Your task to perform on an android device: When is my next appointment? Image 0: 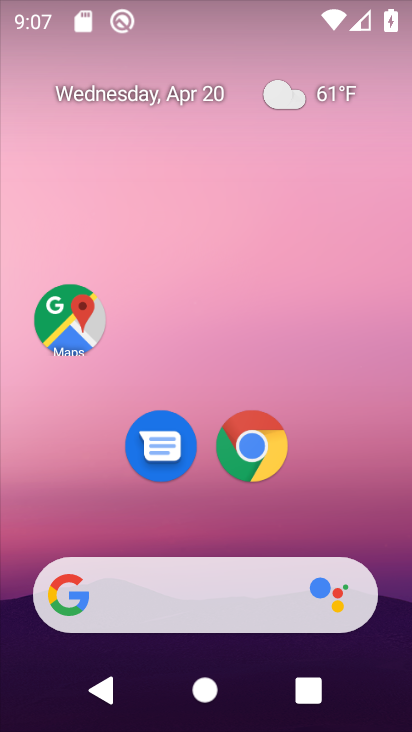
Step 0: drag from (390, 487) to (383, 77)
Your task to perform on an android device: When is my next appointment? Image 1: 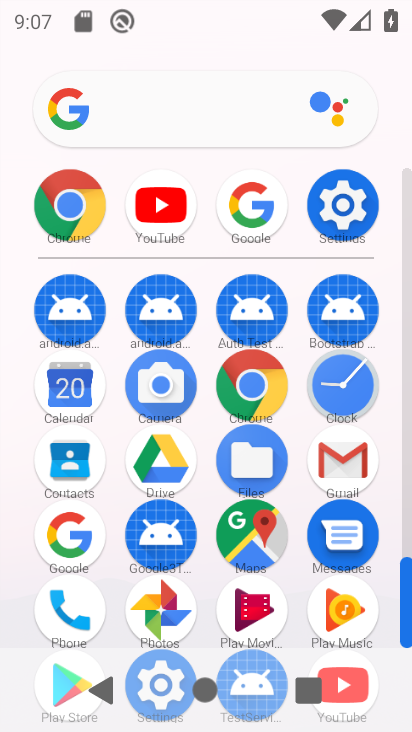
Step 1: drag from (299, 505) to (307, 210)
Your task to perform on an android device: When is my next appointment? Image 2: 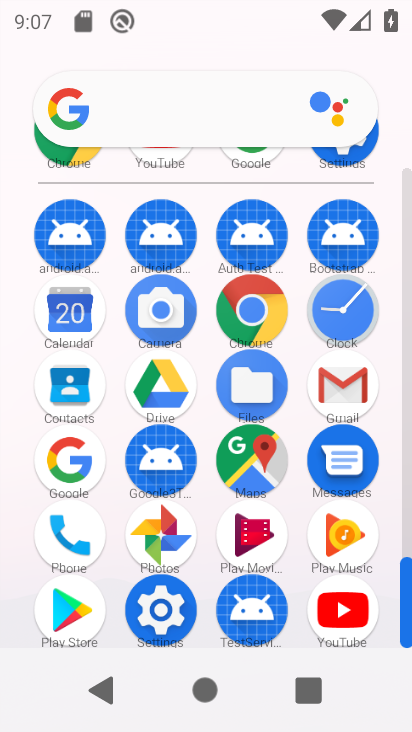
Step 2: click (68, 305)
Your task to perform on an android device: When is my next appointment? Image 3: 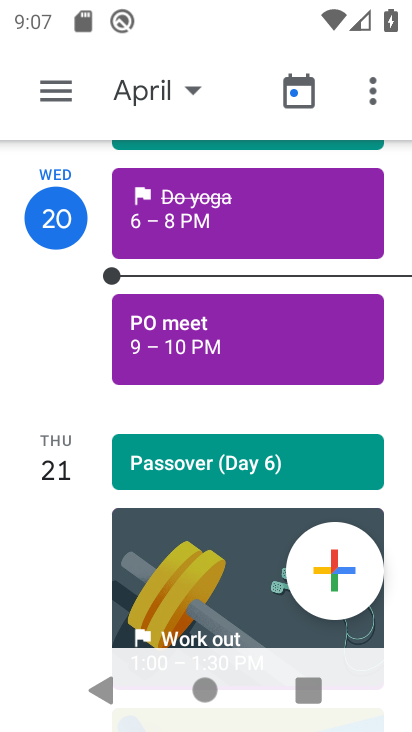
Step 3: task complete